Your task to perform on an android device: What's the weather? Image 0: 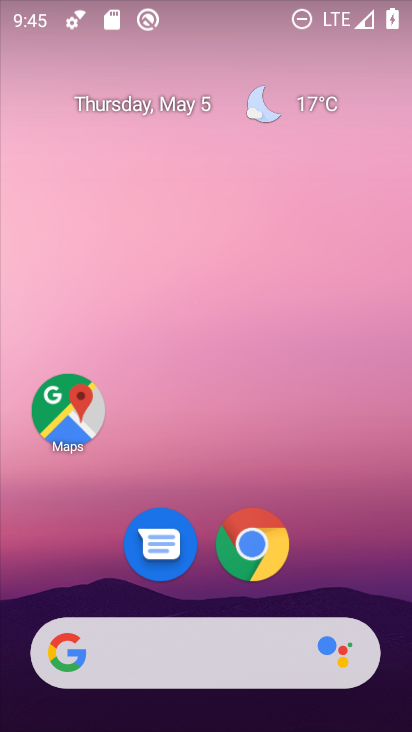
Step 0: click (317, 102)
Your task to perform on an android device: What's the weather? Image 1: 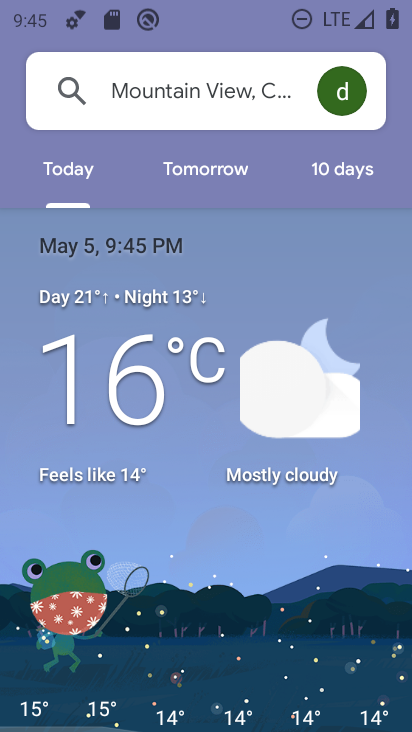
Step 1: task complete